Your task to perform on an android device: turn on airplane mode Image 0: 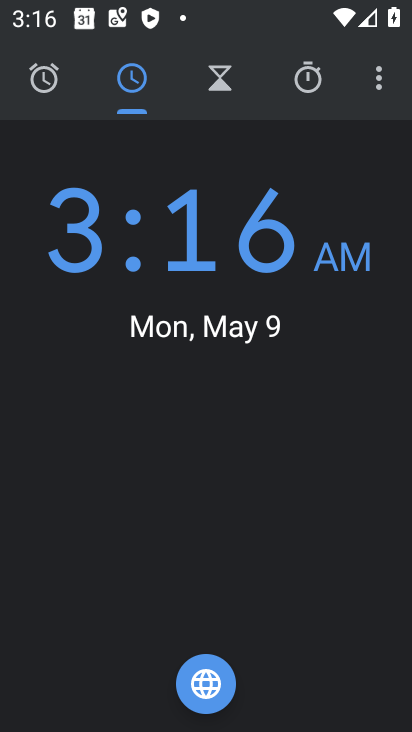
Step 0: press home button
Your task to perform on an android device: turn on airplane mode Image 1: 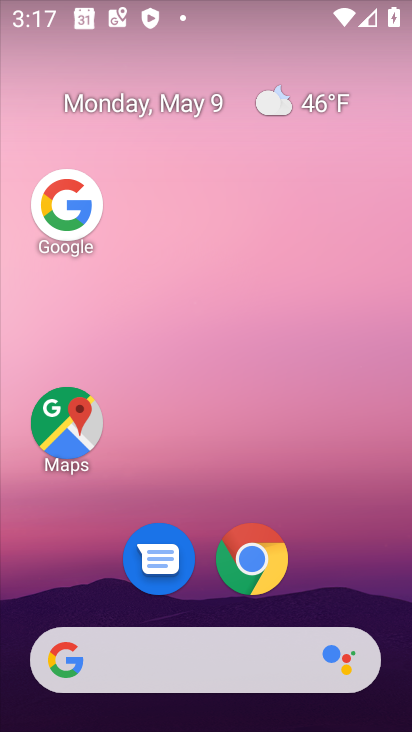
Step 1: drag from (309, 564) to (300, 39)
Your task to perform on an android device: turn on airplane mode Image 2: 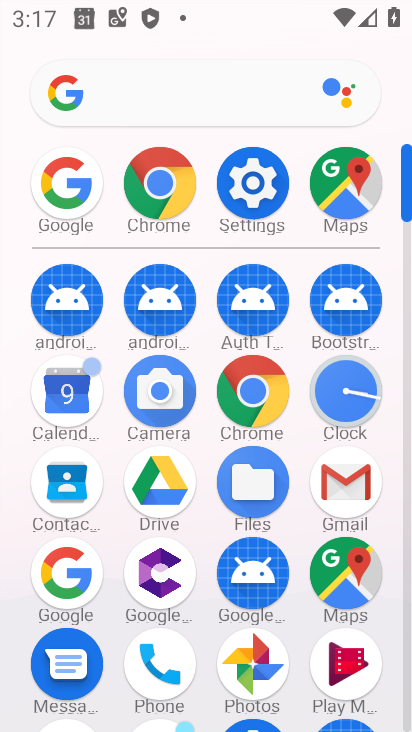
Step 2: click (244, 182)
Your task to perform on an android device: turn on airplane mode Image 3: 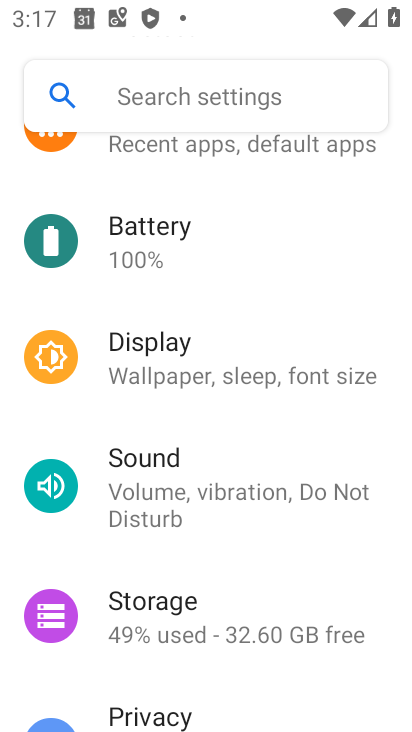
Step 3: drag from (262, 177) to (248, 551)
Your task to perform on an android device: turn on airplane mode Image 4: 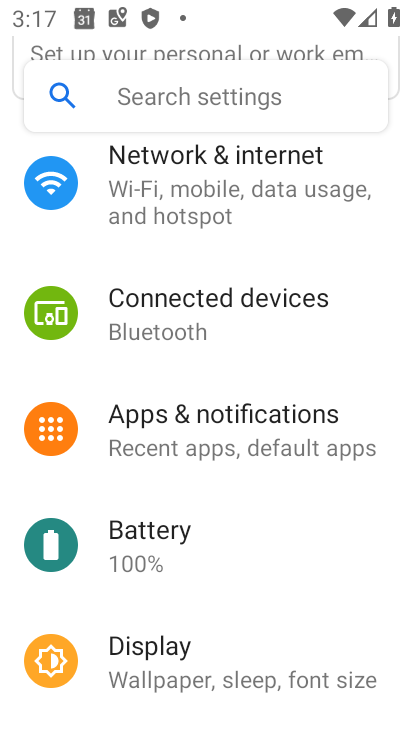
Step 4: click (275, 187)
Your task to perform on an android device: turn on airplane mode Image 5: 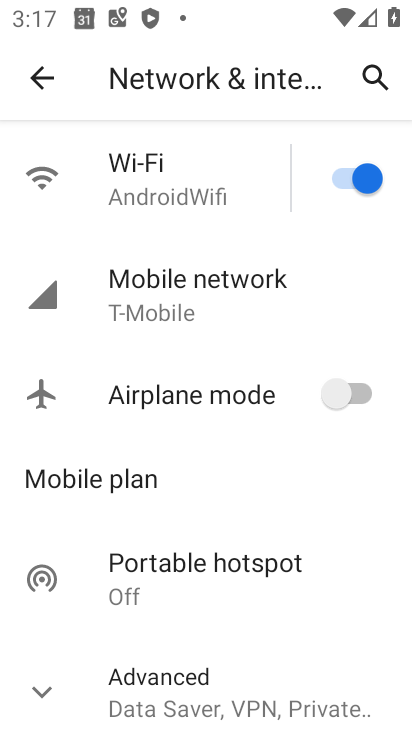
Step 5: click (341, 404)
Your task to perform on an android device: turn on airplane mode Image 6: 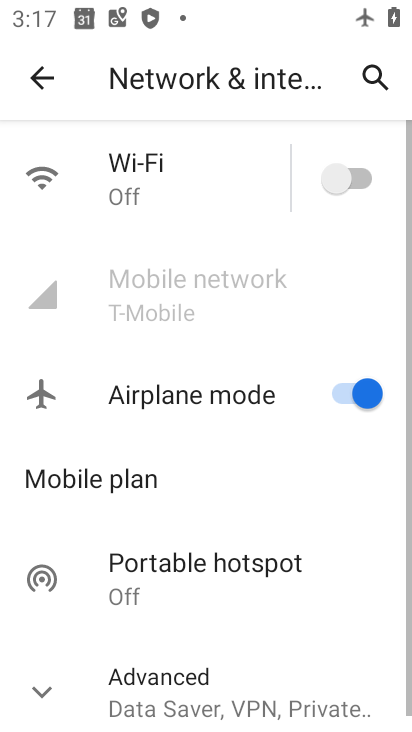
Step 6: task complete